Your task to perform on an android device: Open Yahoo.com Image 0: 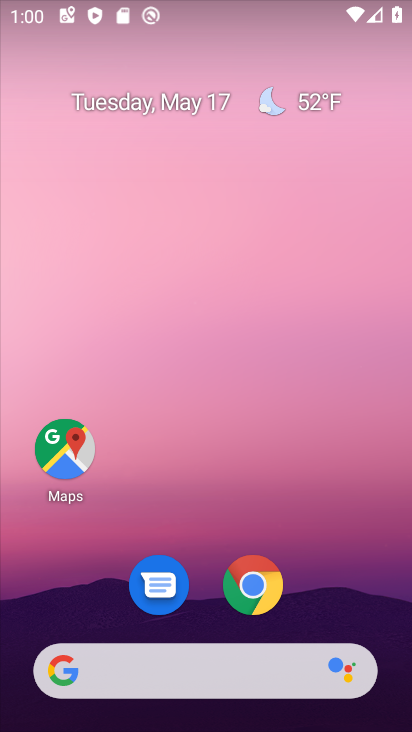
Step 0: click (224, 669)
Your task to perform on an android device: Open Yahoo.com Image 1: 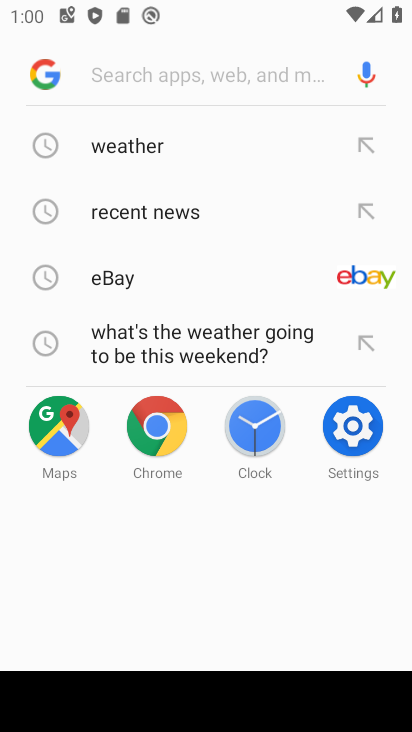
Step 1: type "yahoo.com"
Your task to perform on an android device: Open Yahoo.com Image 2: 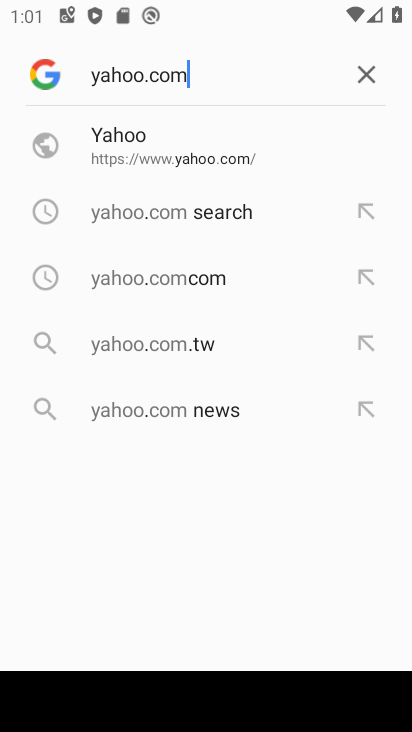
Step 2: click (91, 134)
Your task to perform on an android device: Open Yahoo.com Image 3: 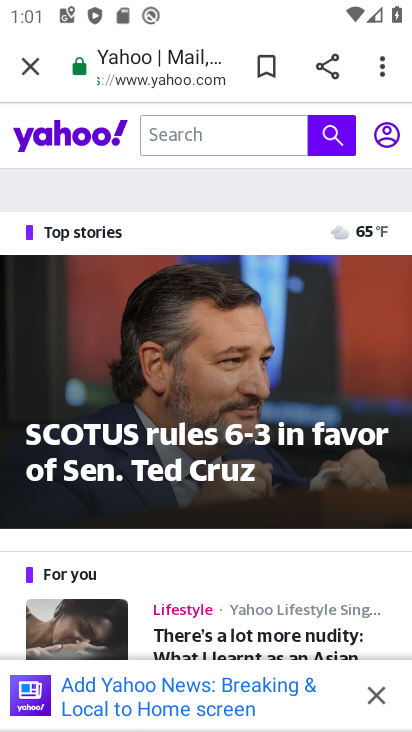
Step 3: task complete